Your task to perform on an android device: toggle sleep mode Image 0: 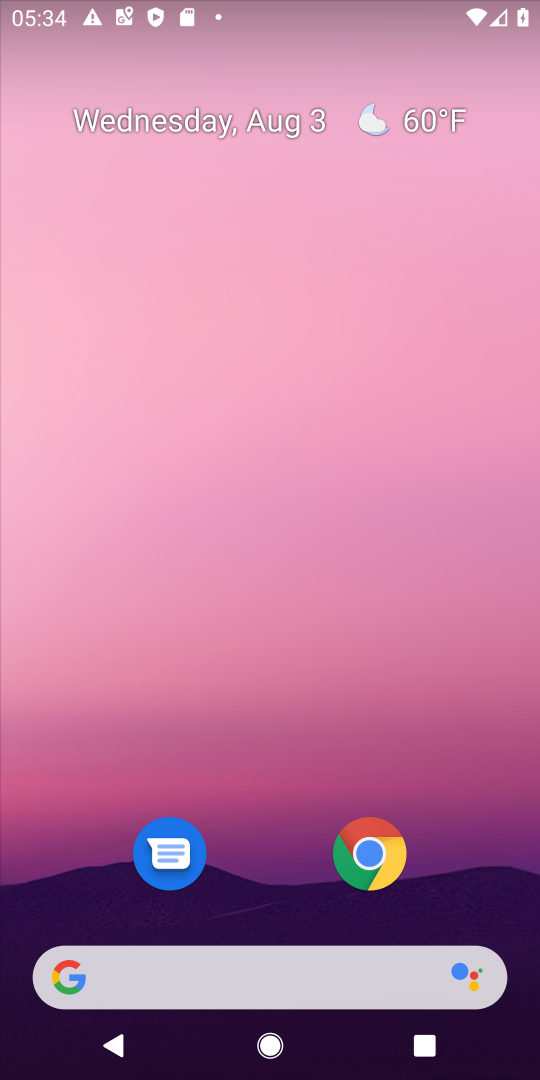
Step 0: drag from (266, 917) to (266, 69)
Your task to perform on an android device: toggle sleep mode Image 1: 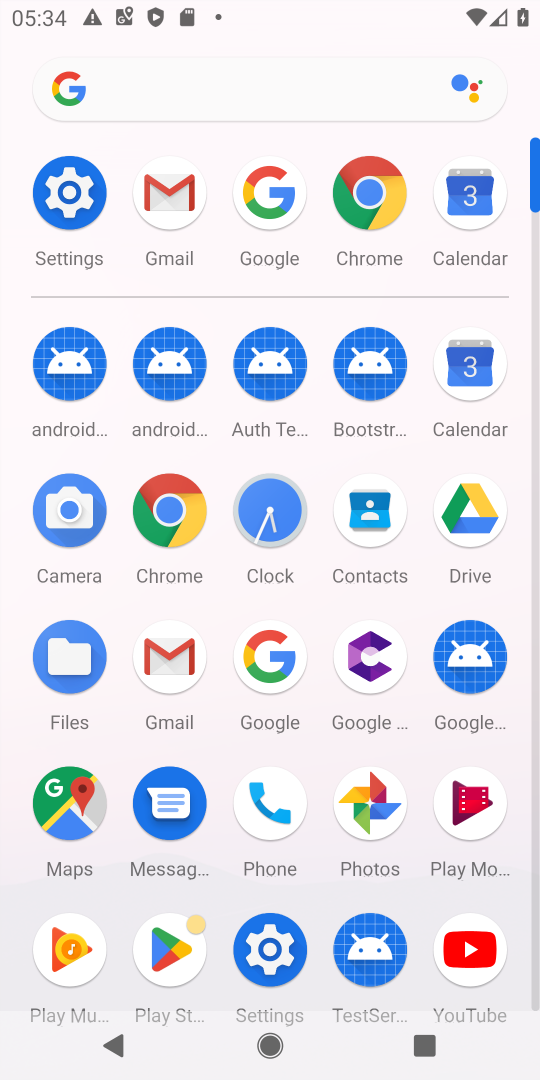
Step 1: click (267, 939)
Your task to perform on an android device: toggle sleep mode Image 2: 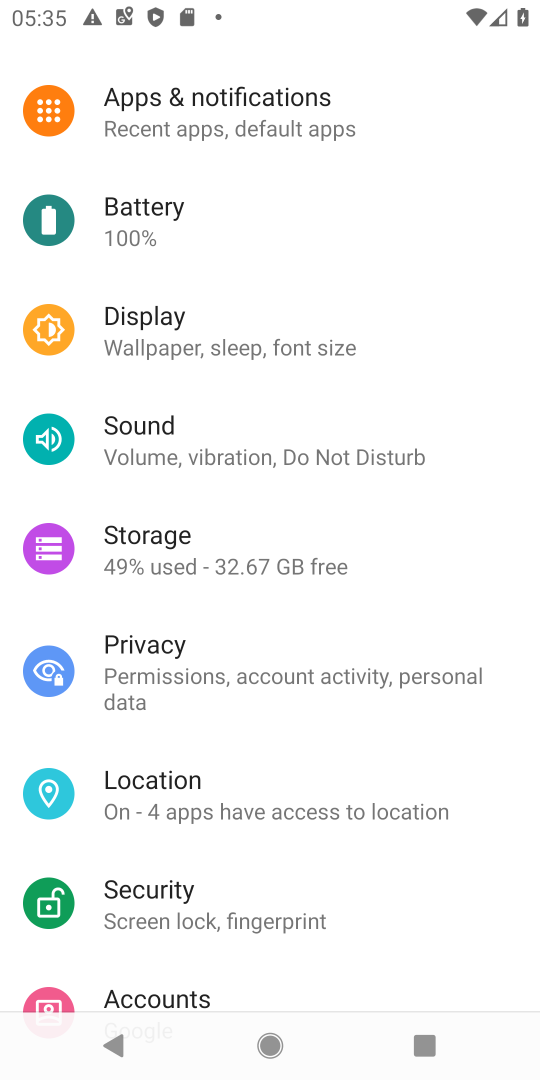
Step 2: click (188, 344)
Your task to perform on an android device: toggle sleep mode Image 3: 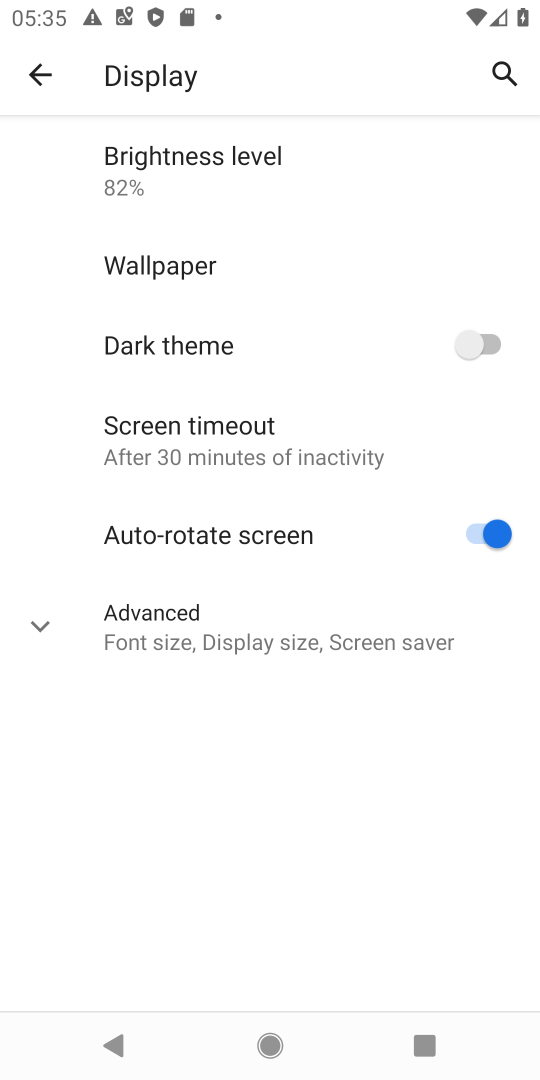
Step 3: task complete